Your task to perform on an android device: set the timer Image 0: 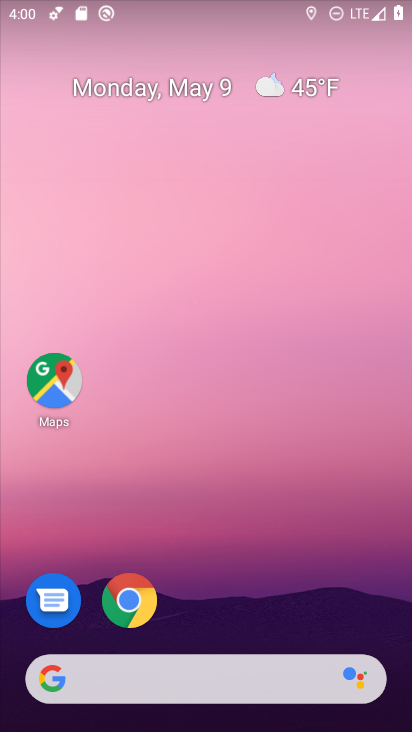
Step 0: drag from (231, 543) to (346, 69)
Your task to perform on an android device: set the timer Image 1: 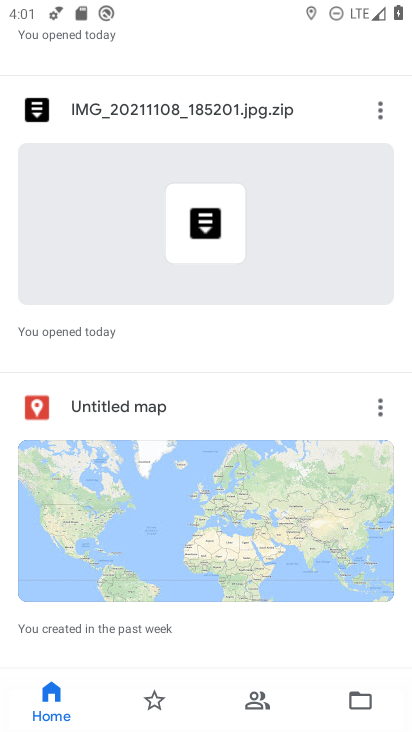
Step 1: press home button
Your task to perform on an android device: set the timer Image 2: 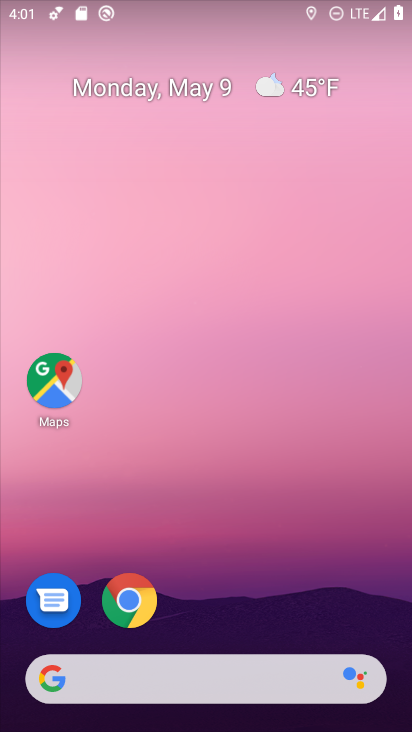
Step 2: drag from (197, 470) to (323, 5)
Your task to perform on an android device: set the timer Image 3: 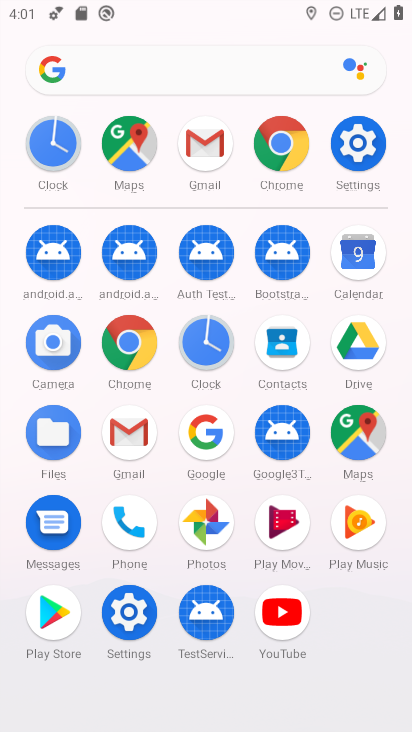
Step 3: click (209, 353)
Your task to perform on an android device: set the timer Image 4: 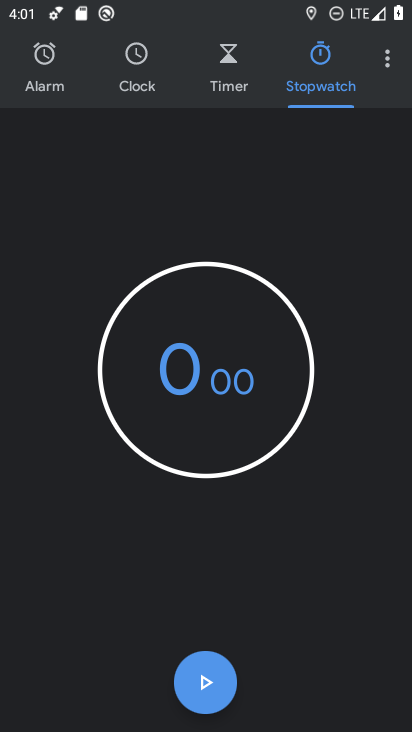
Step 4: click (226, 89)
Your task to perform on an android device: set the timer Image 5: 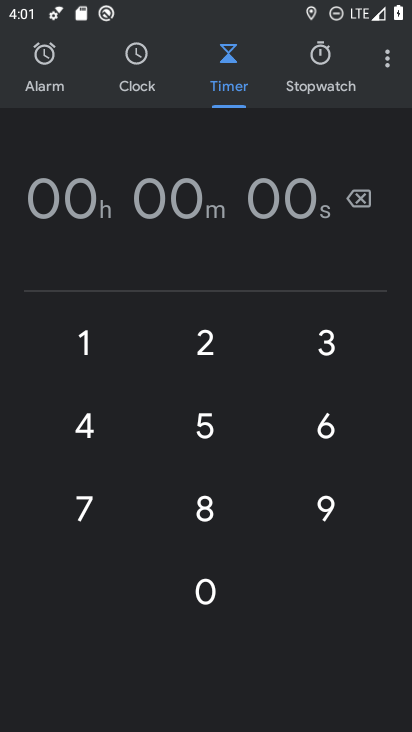
Step 5: click (328, 512)
Your task to perform on an android device: set the timer Image 6: 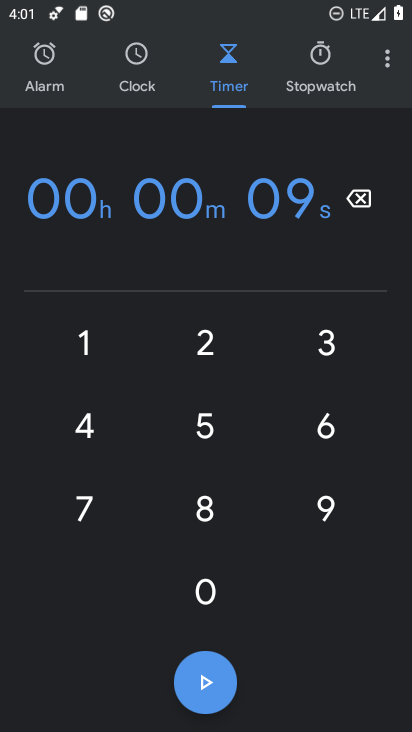
Step 6: click (214, 431)
Your task to perform on an android device: set the timer Image 7: 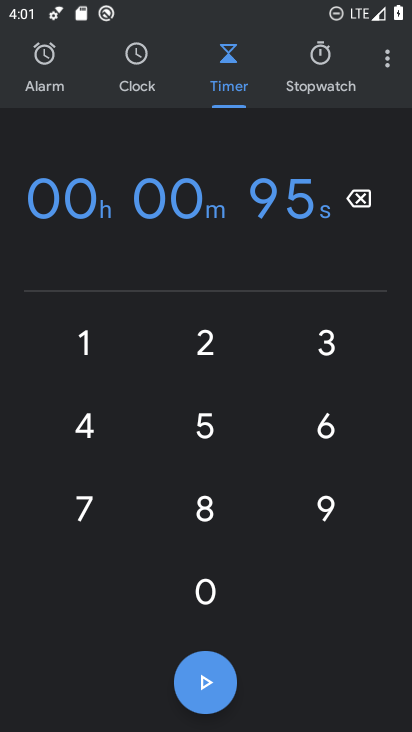
Step 7: click (207, 496)
Your task to perform on an android device: set the timer Image 8: 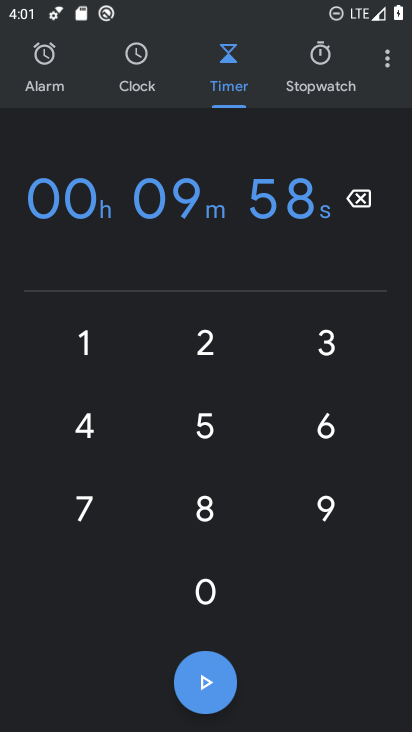
Step 8: task complete